Your task to perform on an android device: empty trash in the gmail app Image 0: 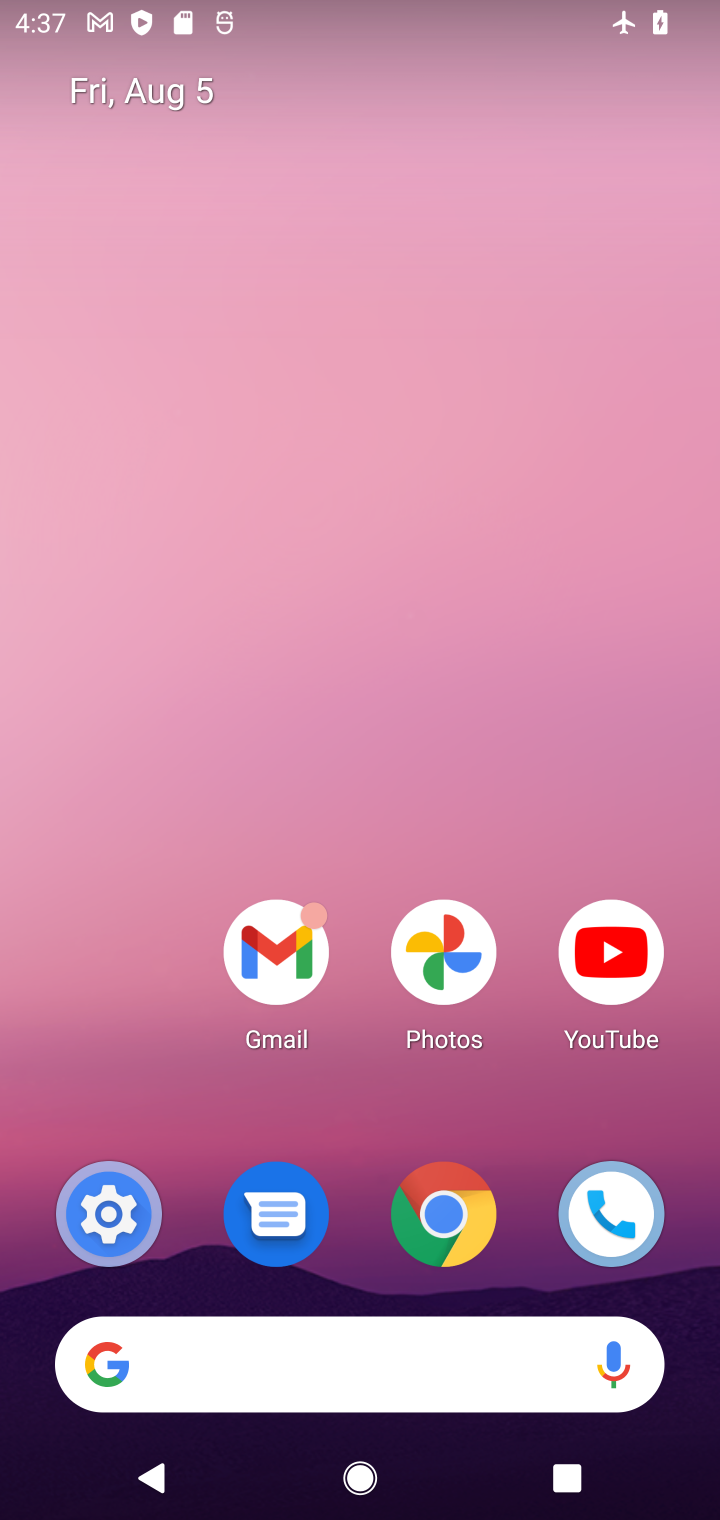
Step 0: click (295, 945)
Your task to perform on an android device: empty trash in the gmail app Image 1: 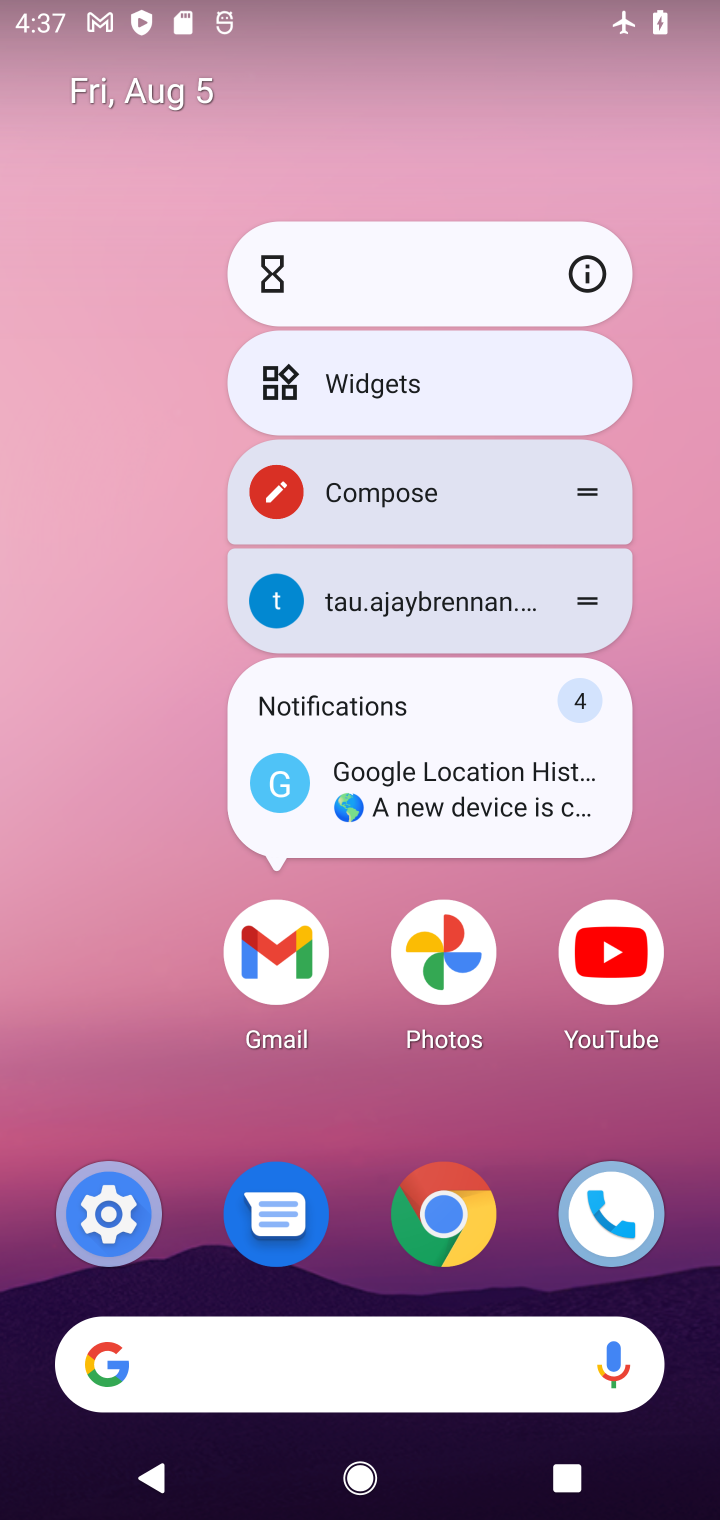
Step 1: click (295, 942)
Your task to perform on an android device: empty trash in the gmail app Image 2: 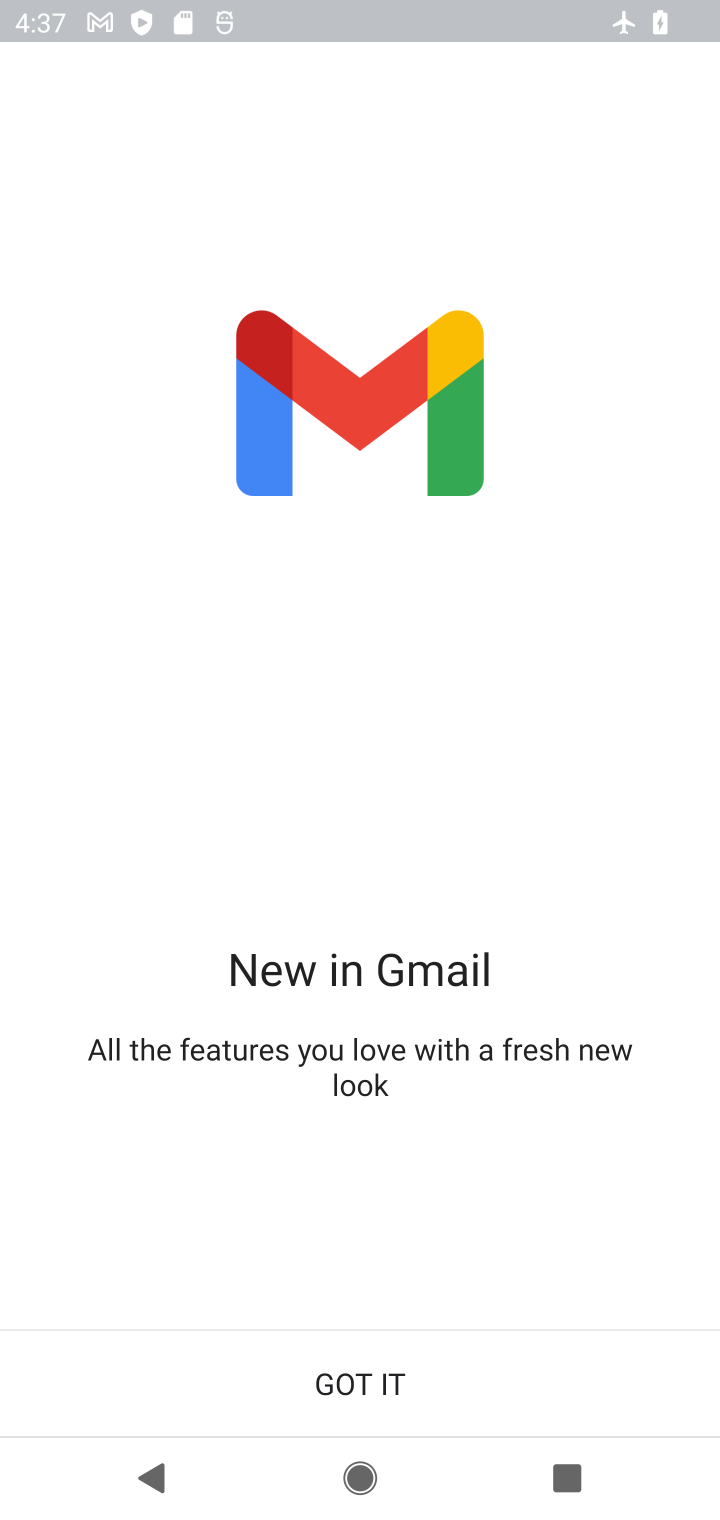
Step 2: click (363, 1377)
Your task to perform on an android device: empty trash in the gmail app Image 3: 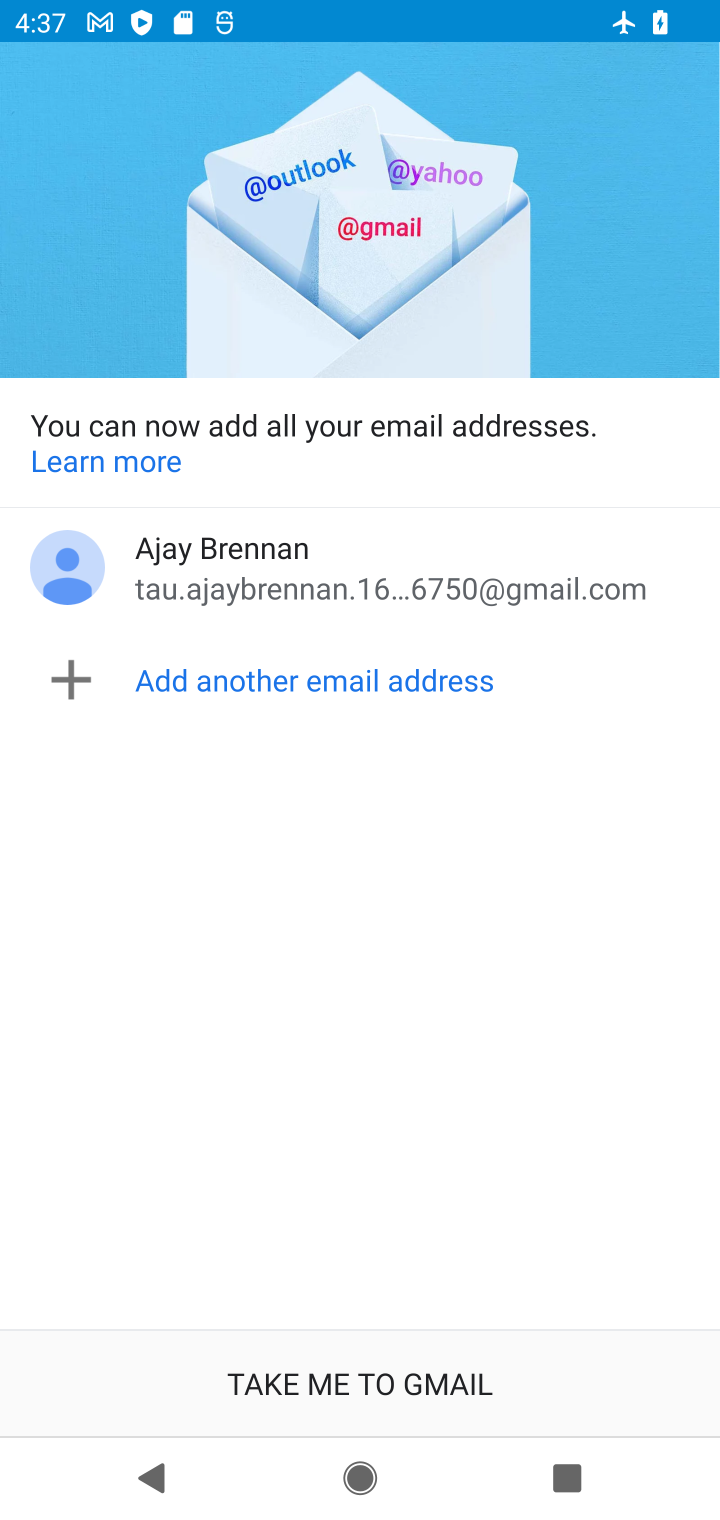
Step 3: click (369, 1387)
Your task to perform on an android device: empty trash in the gmail app Image 4: 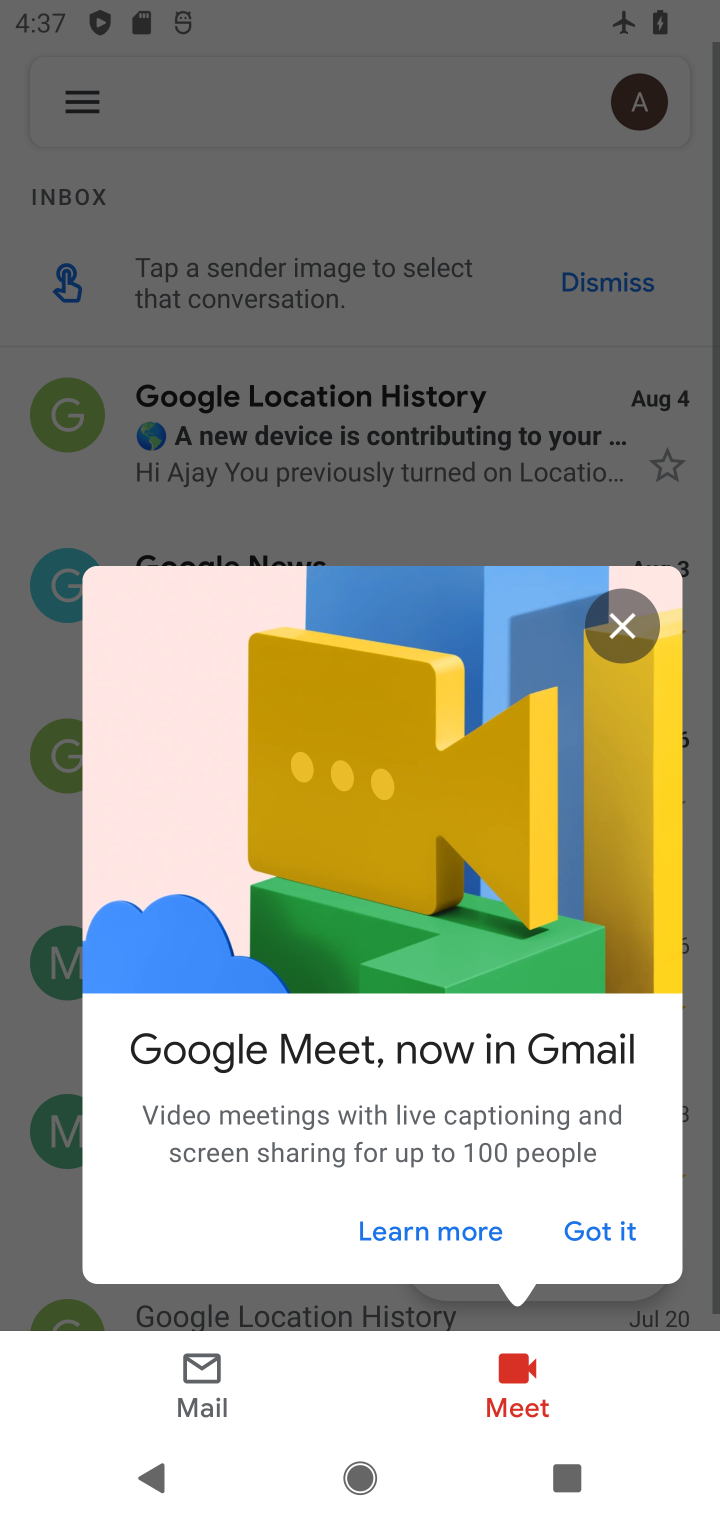
Step 4: click (621, 626)
Your task to perform on an android device: empty trash in the gmail app Image 5: 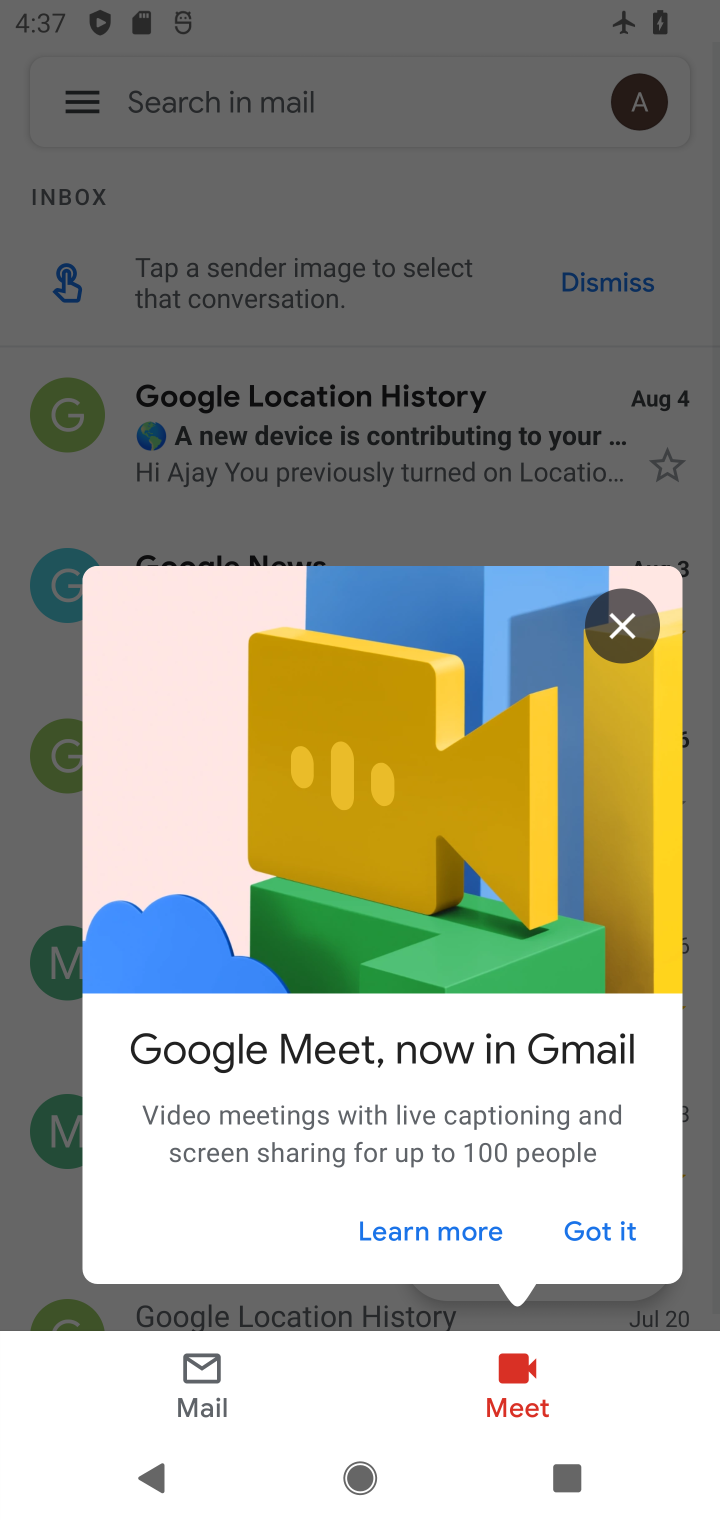
Step 5: click (90, 111)
Your task to perform on an android device: empty trash in the gmail app Image 6: 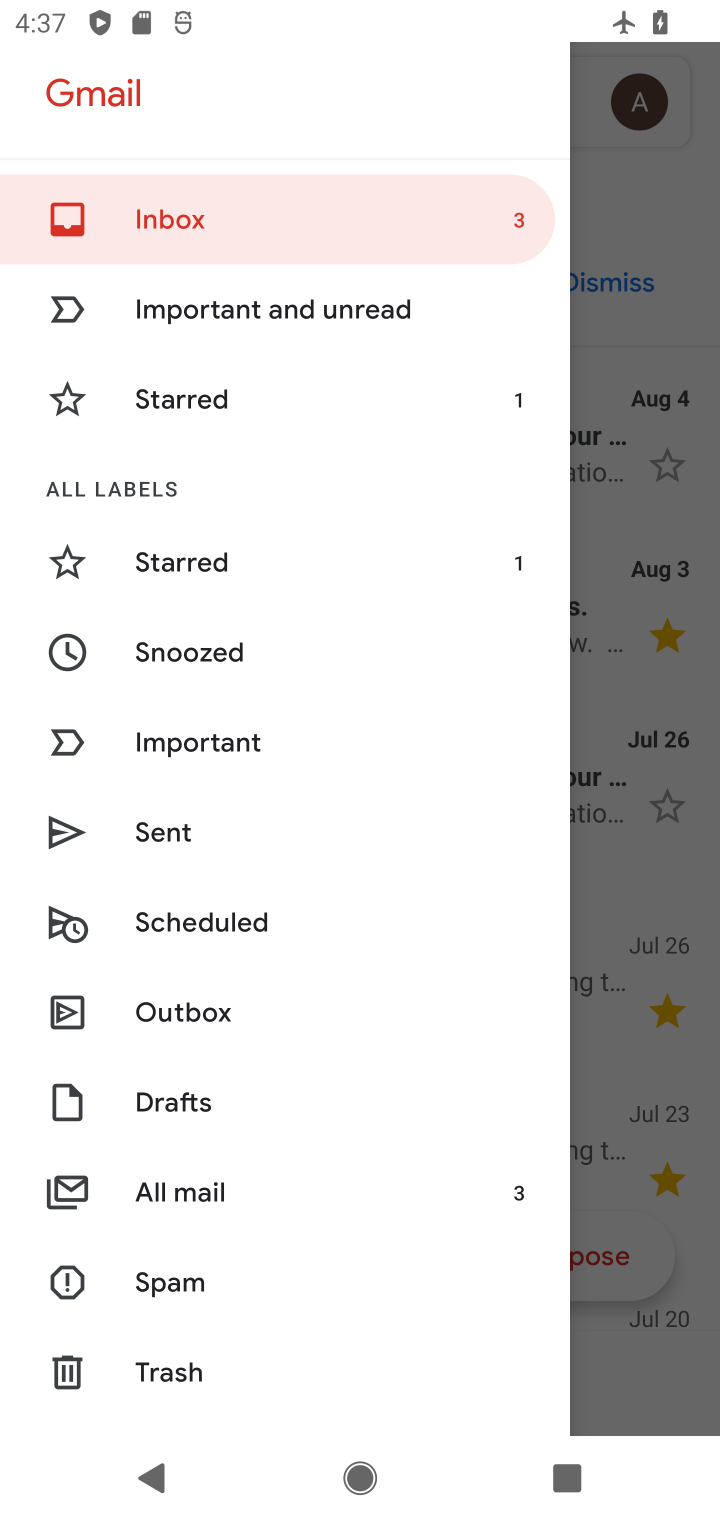
Step 6: click (190, 1367)
Your task to perform on an android device: empty trash in the gmail app Image 7: 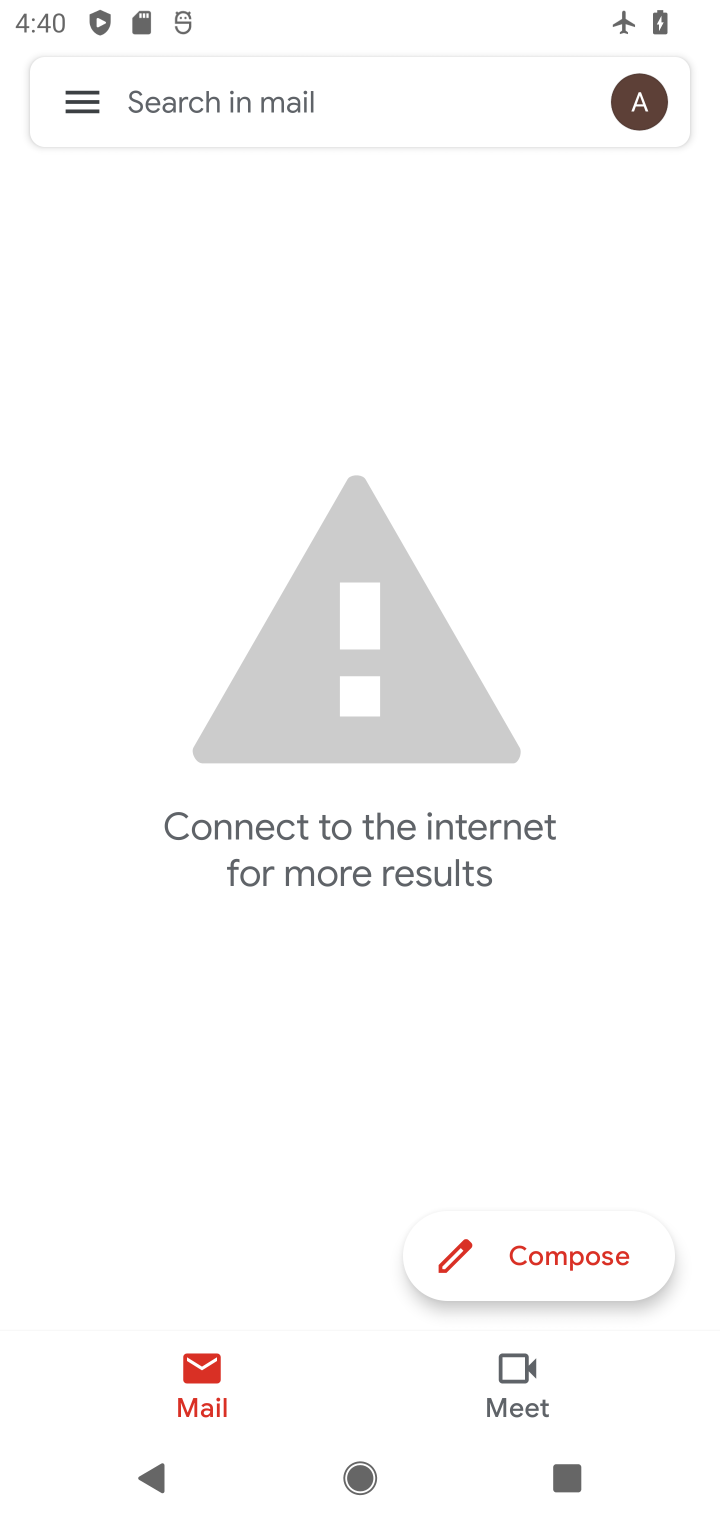
Step 7: task complete